Your task to perform on an android device: Go to Amazon Image 0: 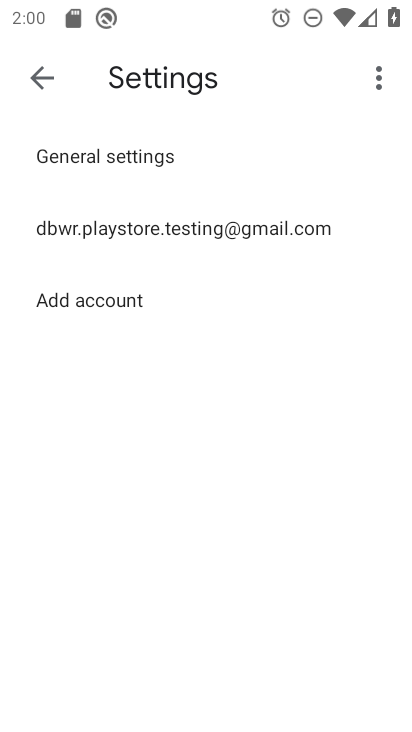
Step 0: press home button
Your task to perform on an android device: Go to Amazon Image 1: 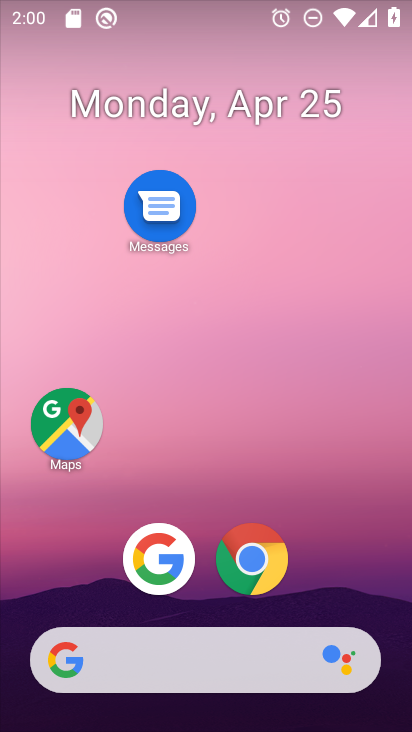
Step 1: click (249, 558)
Your task to perform on an android device: Go to Amazon Image 2: 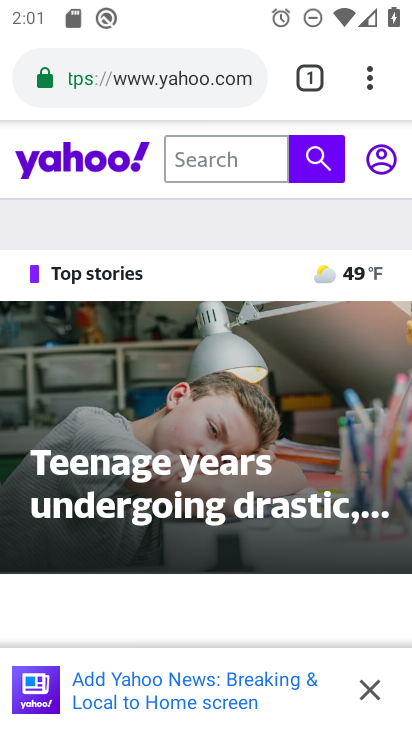
Step 2: press back button
Your task to perform on an android device: Go to Amazon Image 3: 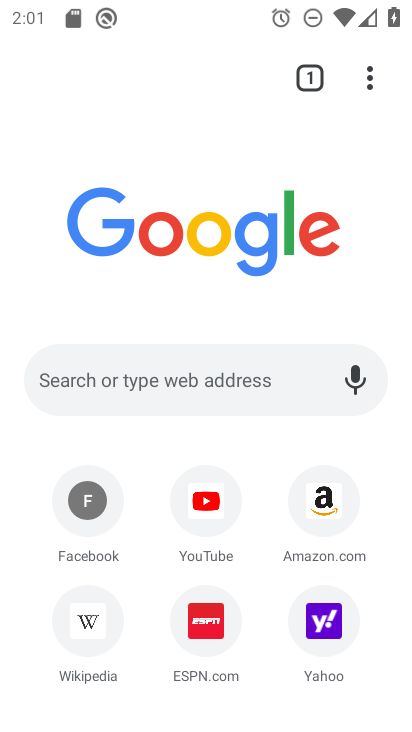
Step 3: click (323, 495)
Your task to perform on an android device: Go to Amazon Image 4: 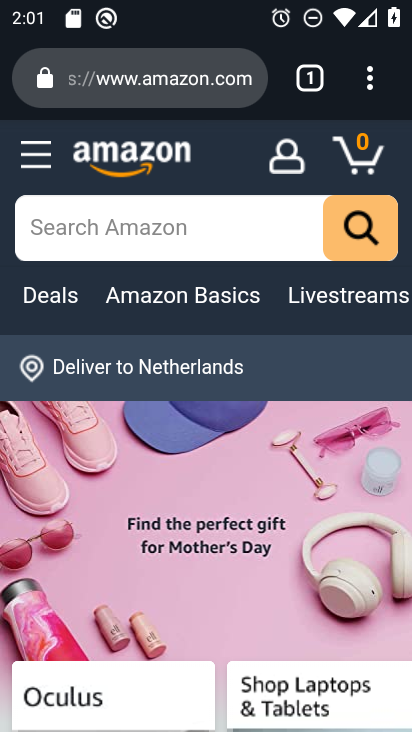
Step 4: task complete